Your task to perform on an android device: check google app version Image 0: 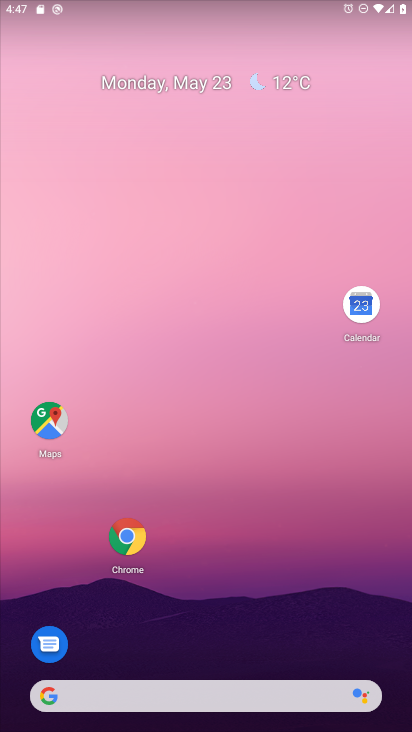
Step 0: drag from (283, 558) to (217, 180)
Your task to perform on an android device: check google app version Image 1: 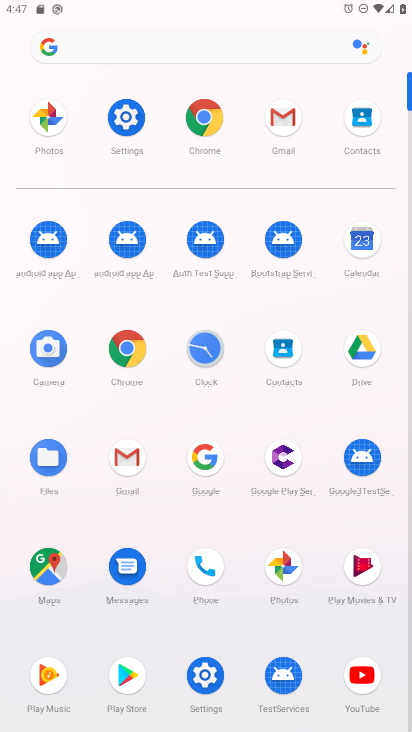
Step 1: click (202, 444)
Your task to perform on an android device: check google app version Image 2: 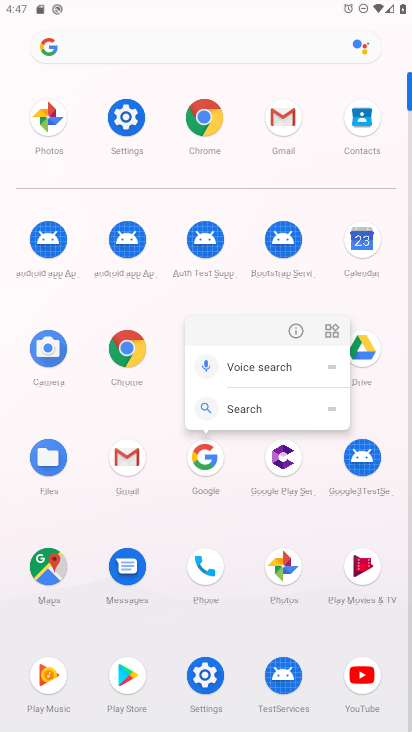
Step 2: click (302, 323)
Your task to perform on an android device: check google app version Image 3: 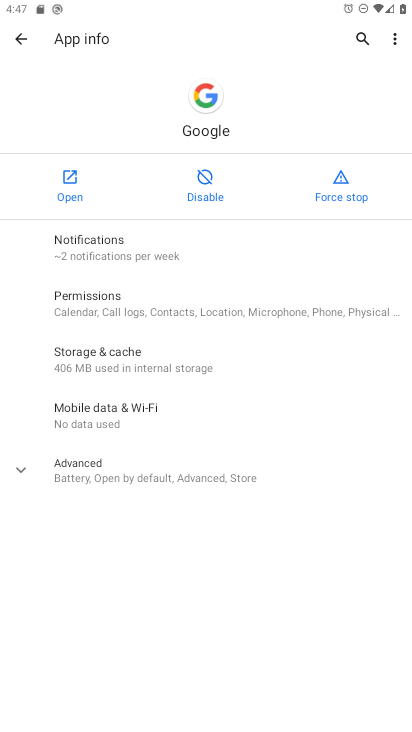
Step 3: click (194, 486)
Your task to perform on an android device: check google app version Image 4: 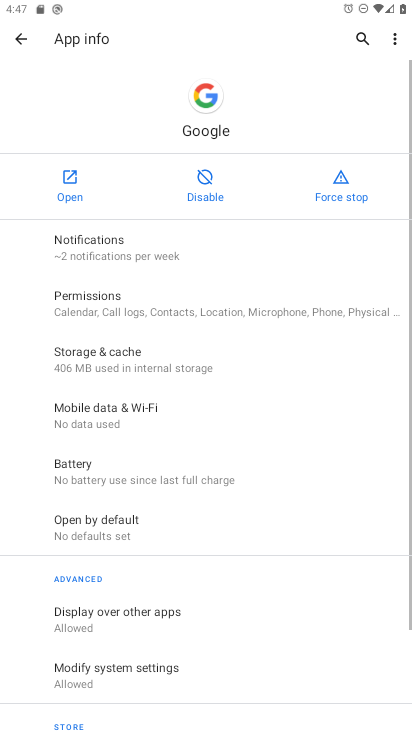
Step 4: task complete